Your task to perform on an android device: turn off location history Image 0: 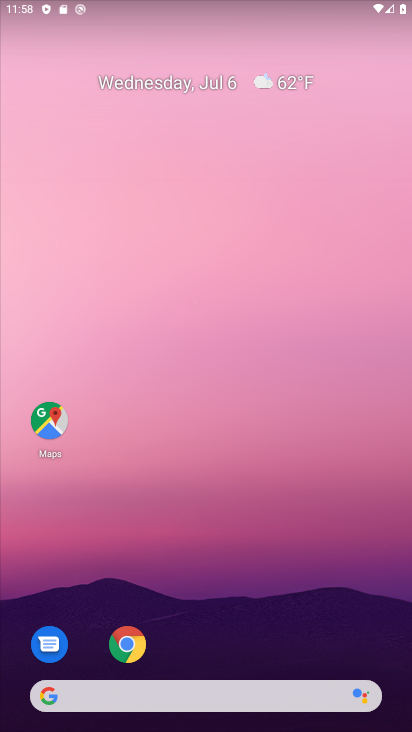
Step 0: drag from (325, 443) to (273, 131)
Your task to perform on an android device: turn off location history Image 1: 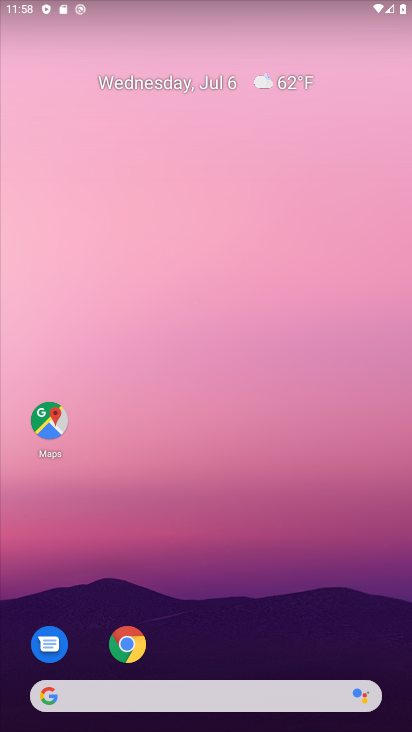
Step 1: drag from (172, 175) to (213, 61)
Your task to perform on an android device: turn off location history Image 2: 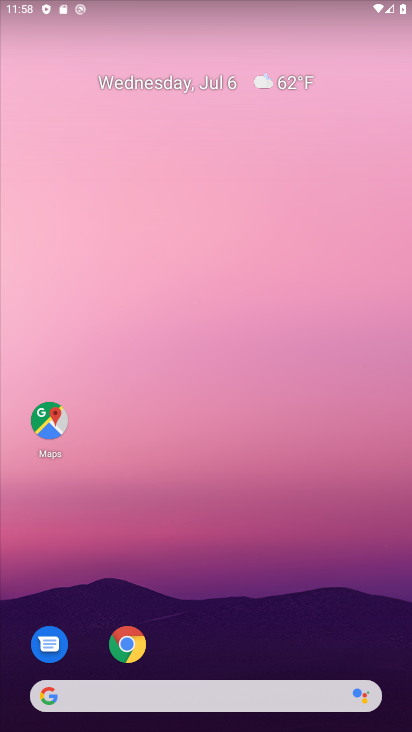
Step 2: drag from (281, 230) to (359, 25)
Your task to perform on an android device: turn off location history Image 3: 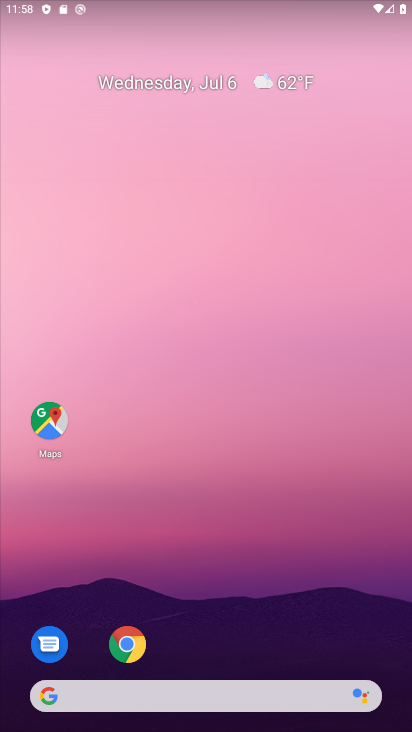
Step 3: drag from (61, 601) to (267, 112)
Your task to perform on an android device: turn off location history Image 4: 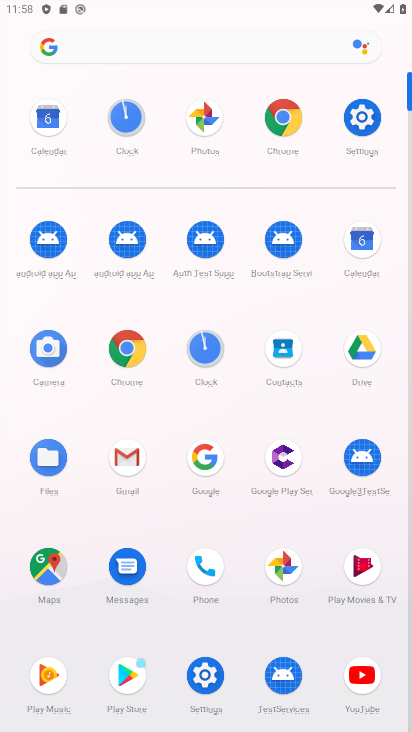
Step 4: click (364, 126)
Your task to perform on an android device: turn off location history Image 5: 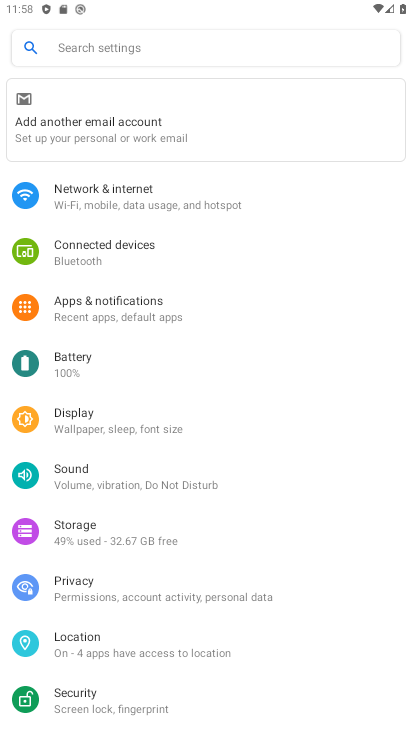
Step 5: click (136, 641)
Your task to perform on an android device: turn off location history Image 6: 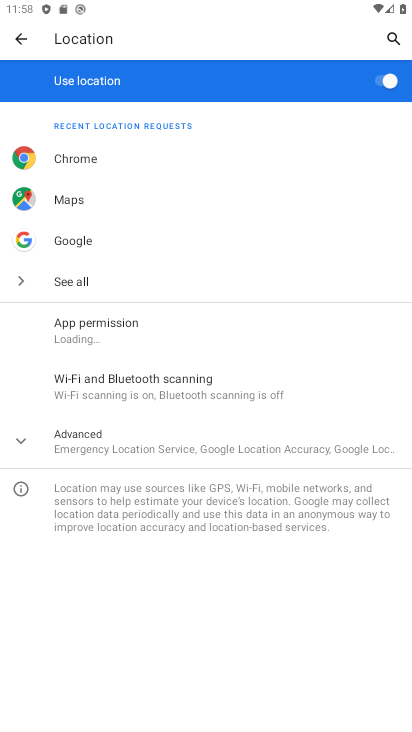
Step 6: click (190, 436)
Your task to perform on an android device: turn off location history Image 7: 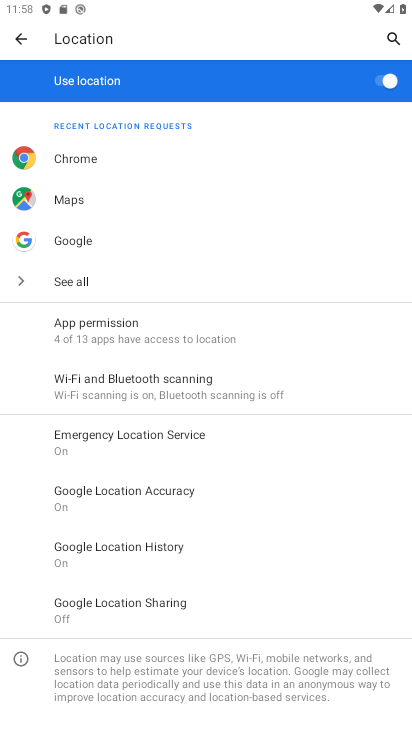
Step 7: click (158, 544)
Your task to perform on an android device: turn off location history Image 8: 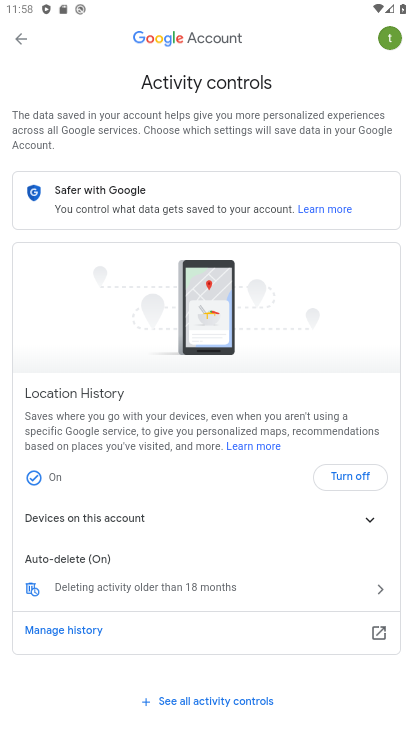
Step 8: click (347, 478)
Your task to perform on an android device: turn off location history Image 9: 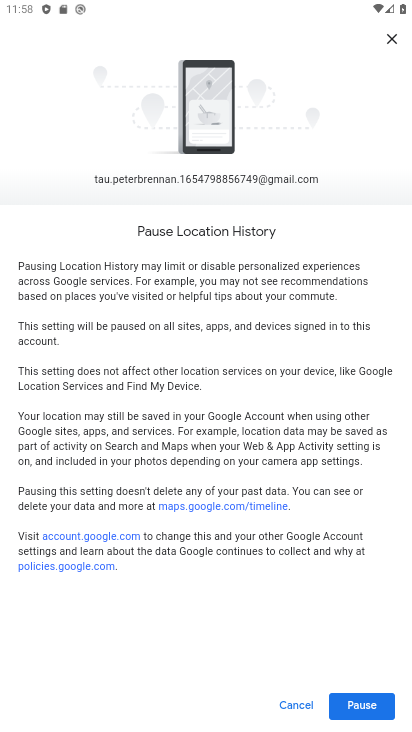
Step 9: click (346, 451)
Your task to perform on an android device: turn off location history Image 10: 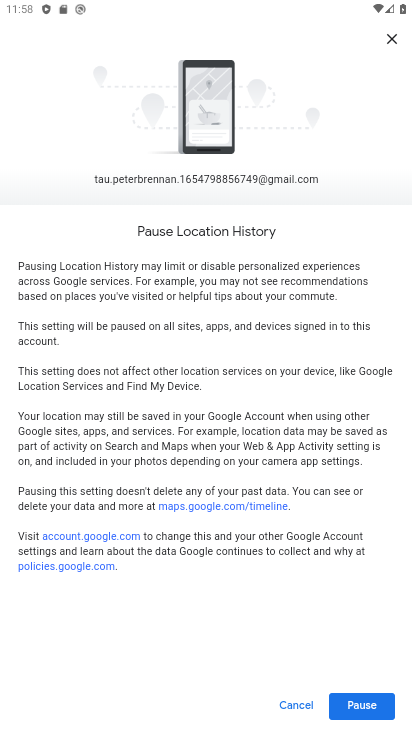
Step 10: click (365, 711)
Your task to perform on an android device: turn off location history Image 11: 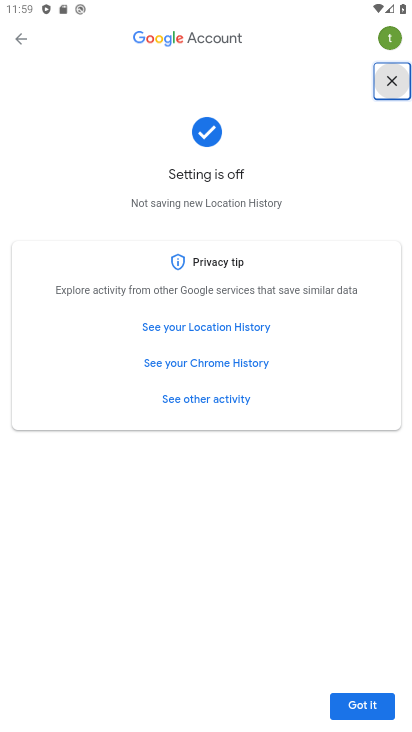
Step 11: click (364, 696)
Your task to perform on an android device: turn off location history Image 12: 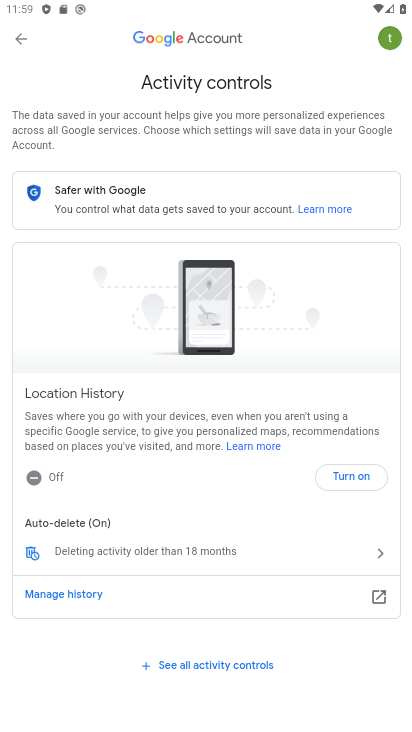
Step 12: task complete